Your task to perform on an android device: check out phone information Image 0: 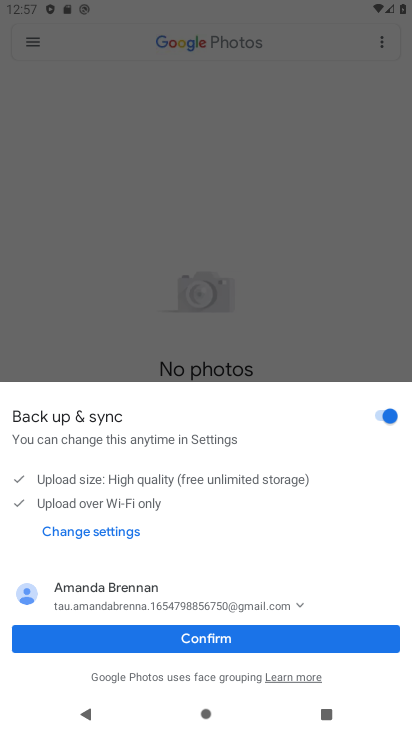
Step 0: press home button
Your task to perform on an android device: check out phone information Image 1: 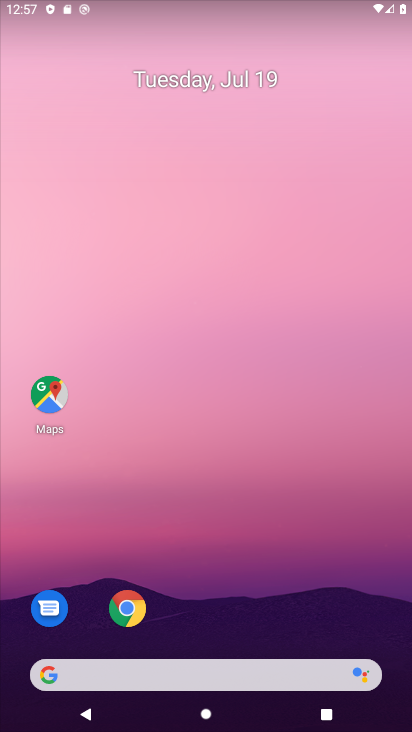
Step 1: drag from (287, 598) to (305, 175)
Your task to perform on an android device: check out phone information Image 2: 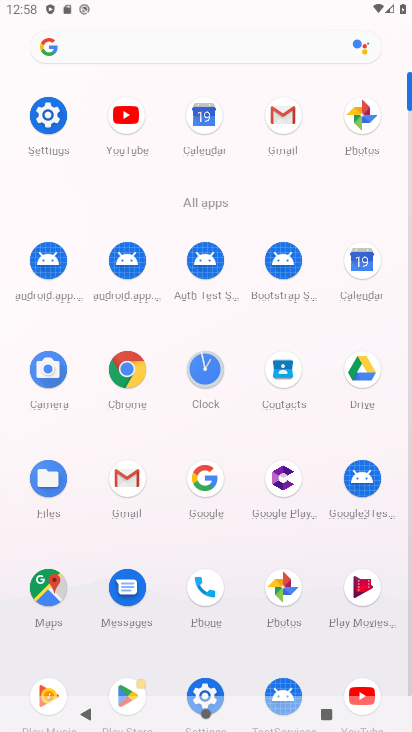
Step 2: click (206, 689)
Your task to perform on an android device: check out phone information Image 3: 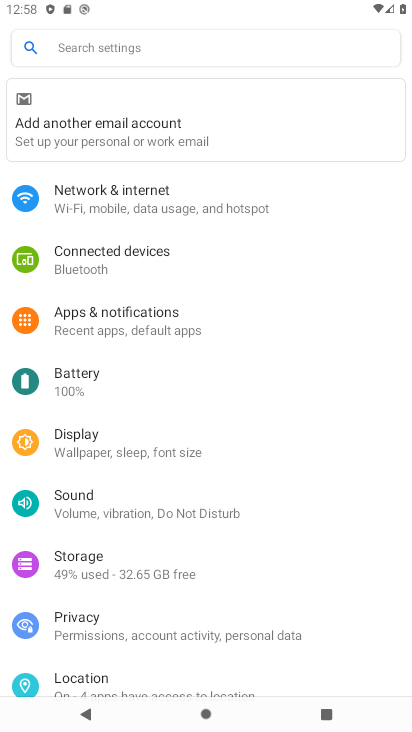
Step 3: drag from (219, 506) to (238, 117)
Your task to perform on an android device: check out phone information Image 4: 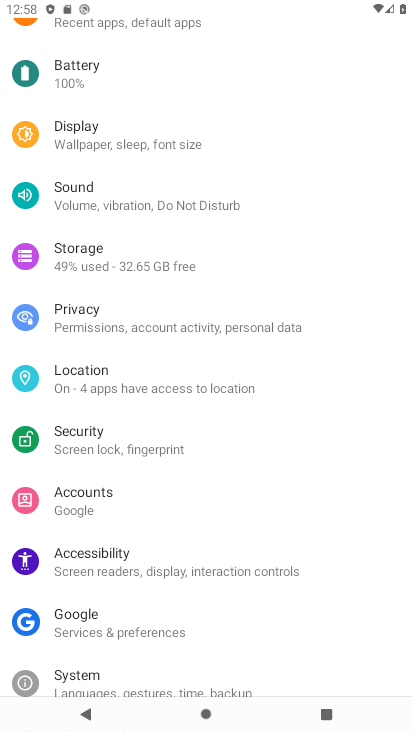
Step 4: drag from (234, 562) to (275, 61)
Your task to perform on an android device: check out phone information Image 5: 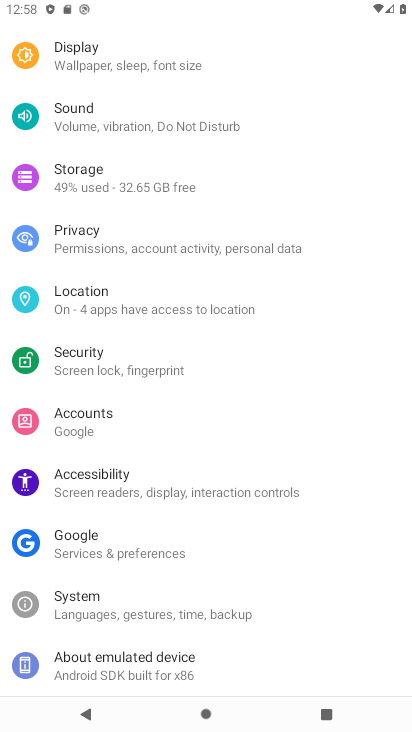
Step 5: drag from (212, 679) to (287, 259)
Your task to perform on an android device: check out phone information Image 6: 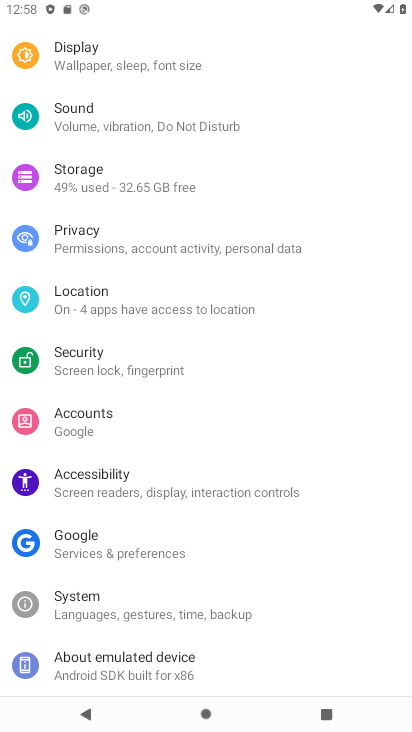
Step 6: click (168, 664)
Your task to perform on an android device: check out phone information Image 7: 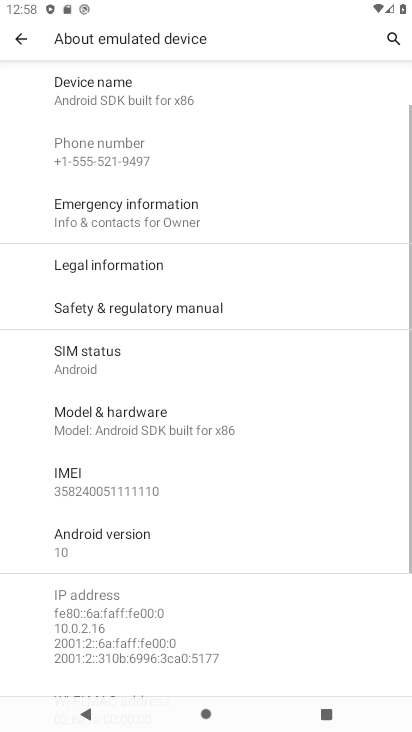
Step 7: task complete